Your task to perform on an android device: turn off improve location accuracy Image 0: 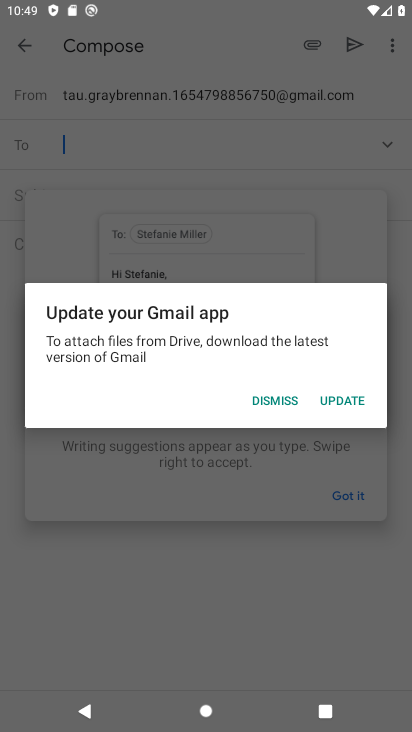
Step 0: press home button
Your task to perform on an android device: turn off improve location accuracy Image 1: 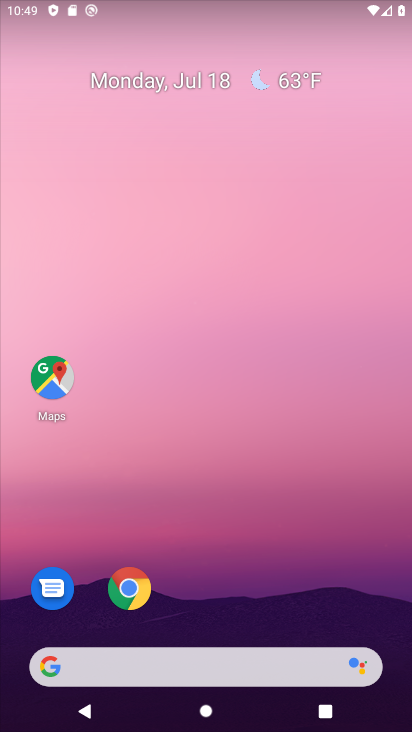
Step 1: drag from (192, 621) to (190, 115)
Your task to perform on an android device: turn off improve location accuracy Image 2: 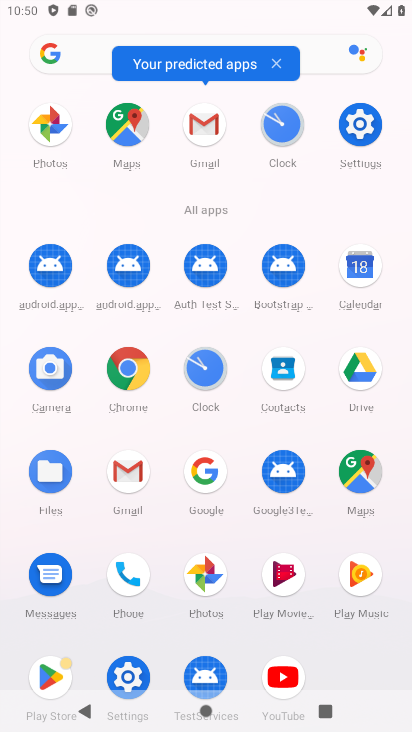
Step 2: click (349, 124)
Your task to perform on an android device: turn off improve location accuracy Image 3: 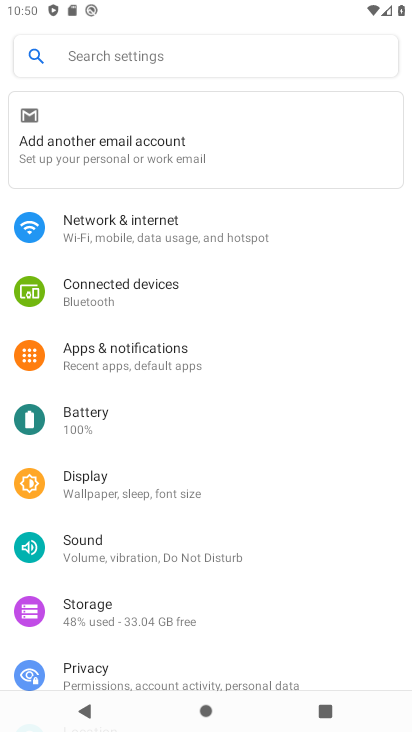
Step 3: drag from (129, 623) to (95, 213)
Your task to perform on an android device: turn off improve location accuracy Image 4: 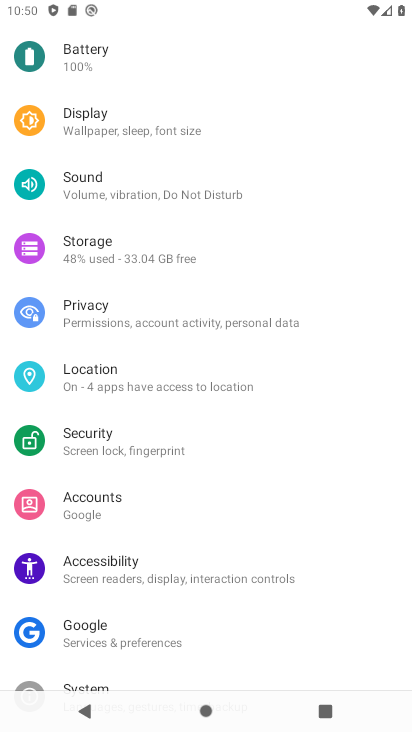
Step 4: click (108, 391)
Your task to perform on an android device: turn off improve location accuracy Image 5: 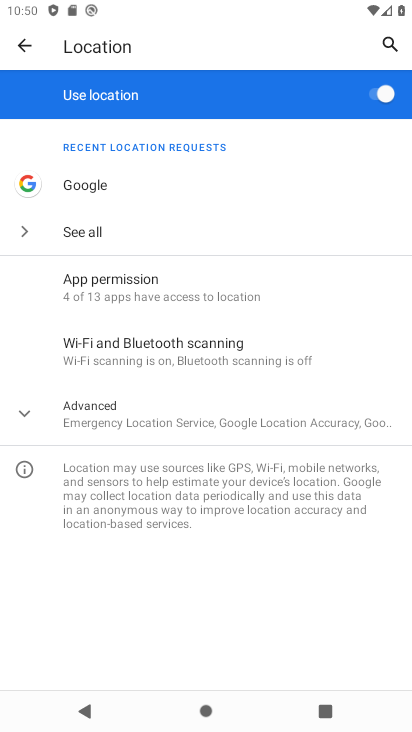
Step 5: click (110, 410)
Your task to perform on an android device: turn off improve location accuracy Image 6: 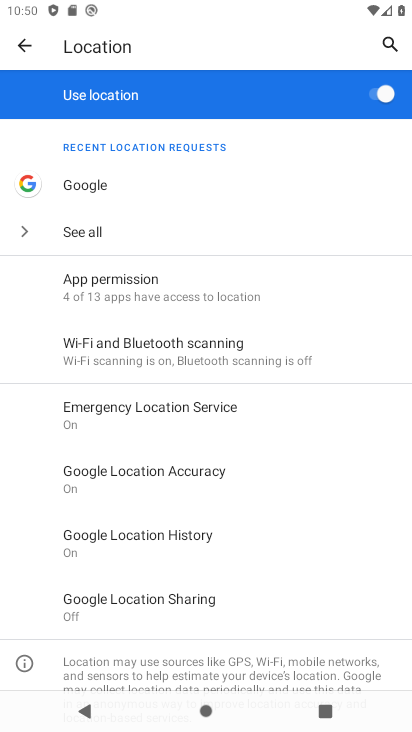
Step 6: click (151, 481)
Your task to perform on an android device: turn off improve location accuracy Image 7: 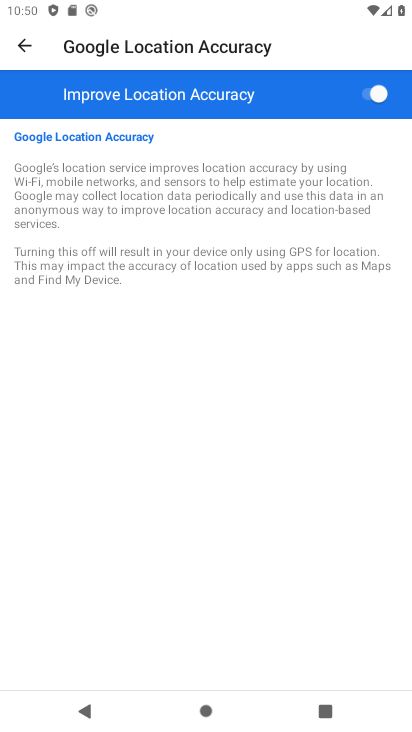
Step 7: click (371, 98)
Your task to perform on an android device: turn off improve location accuracy Image 8: 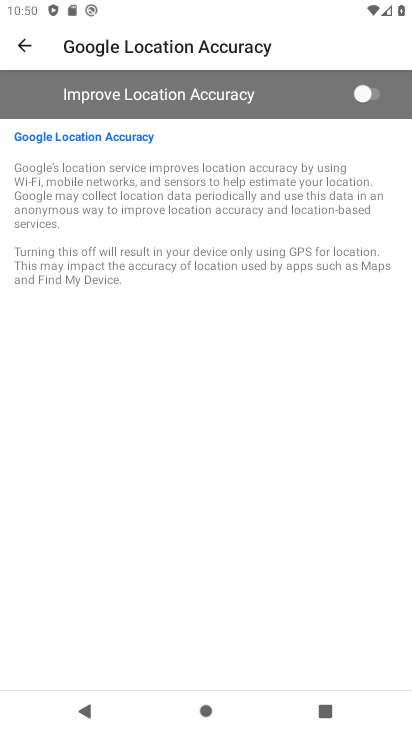
Step 8: task complete